Your task to perform on an android device: turn off notifications settings in the gmail app Image 0: 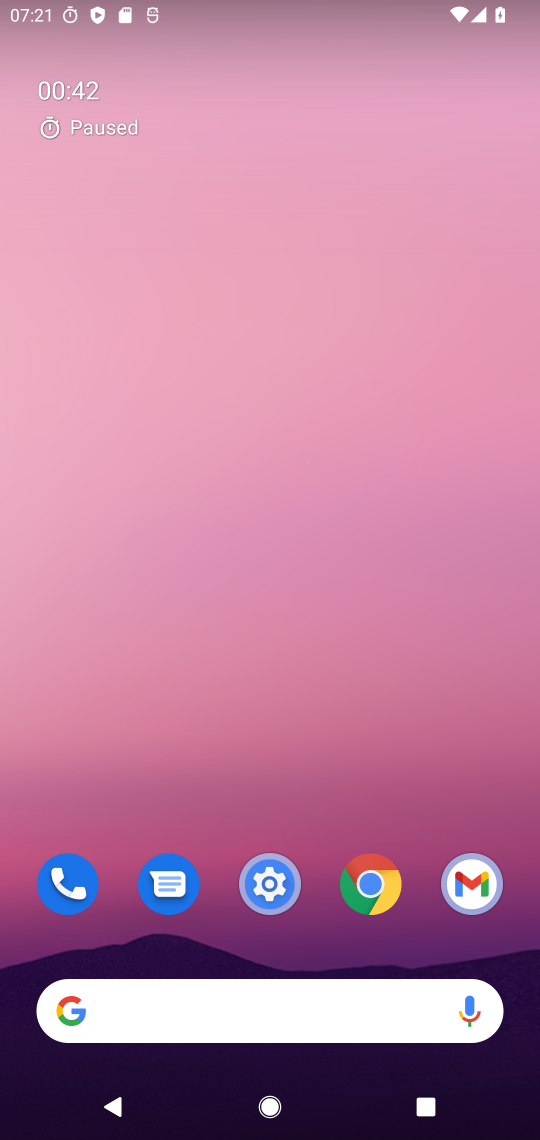
Step 0: press home button
Your task to perform on an android device: turn off notifications settings in the gmail app Image 1: 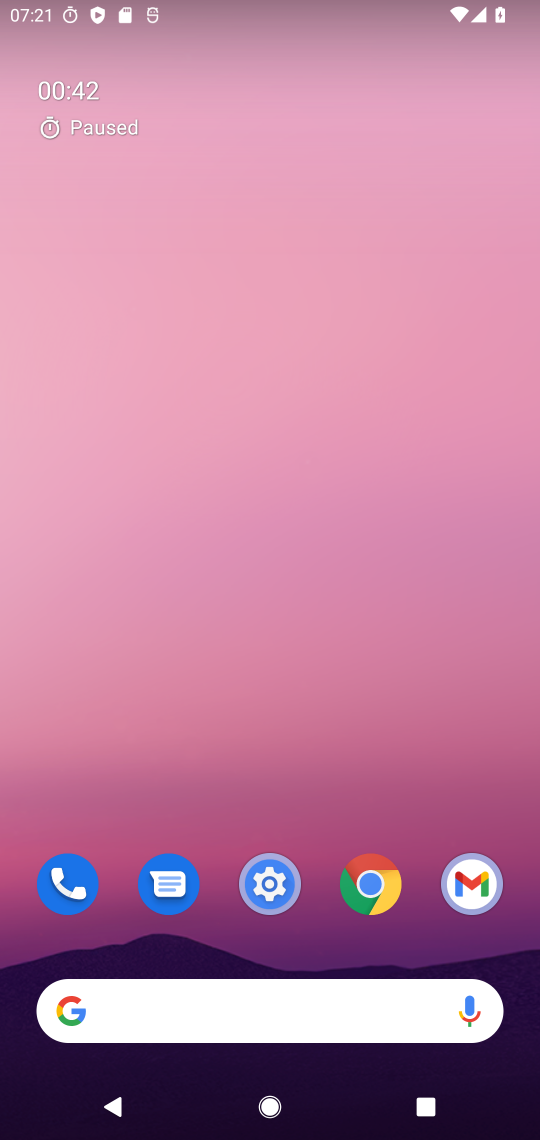
Step 1: press home button
Your task to perform on an android device: turn off notifications settings in the gmail app Image 2: 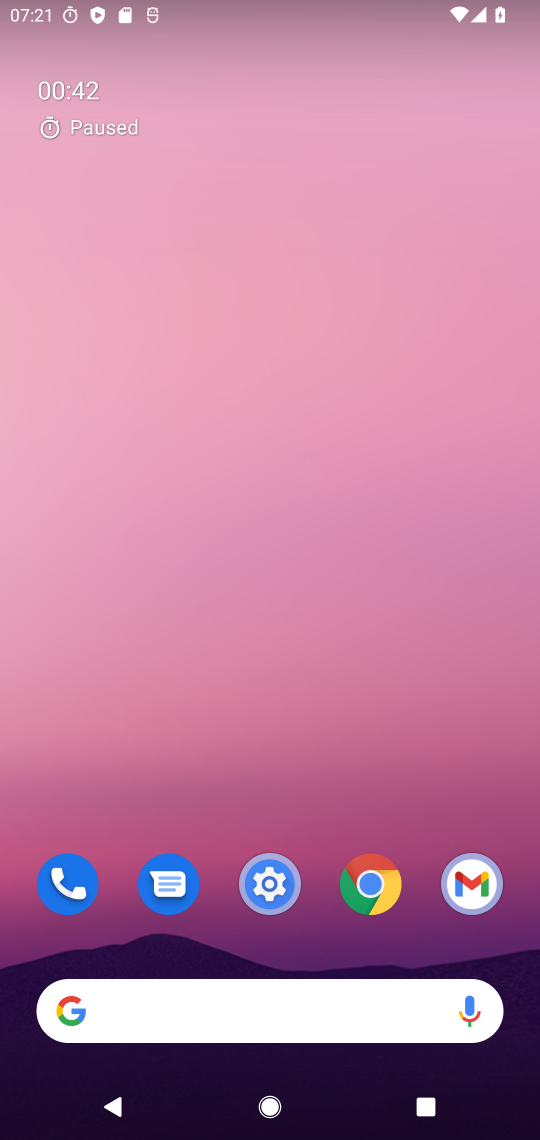
Step 2: click (475, 879)
Your task to perform on an android device: turn off notifications settings in the gmail app Image 3: 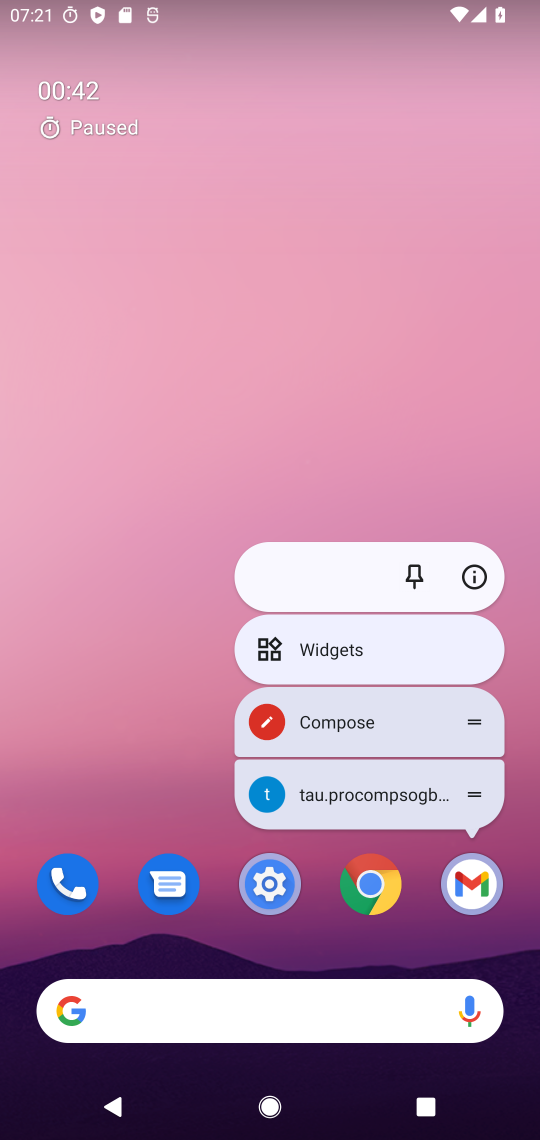
Step 3: drag from (170, 675) to (213, 13)
Your task to perform on an android device: turn off notifications settings in the gmail app Image 4: 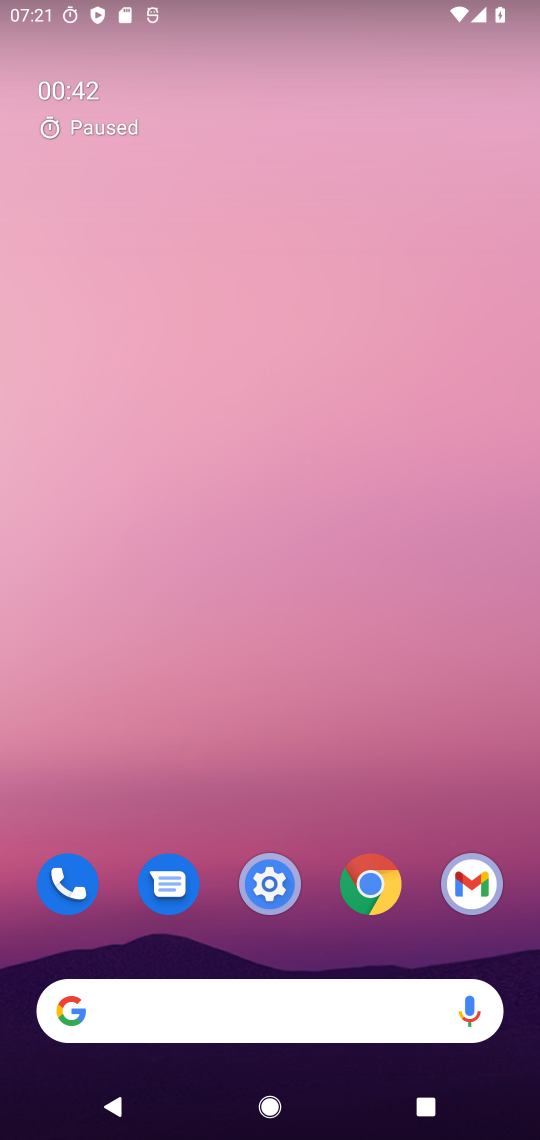
Step 4: drag from (320, 811) to (273, 222)
Your task to perform on an android device: turn off notifications settings in the gmail app Image 5: 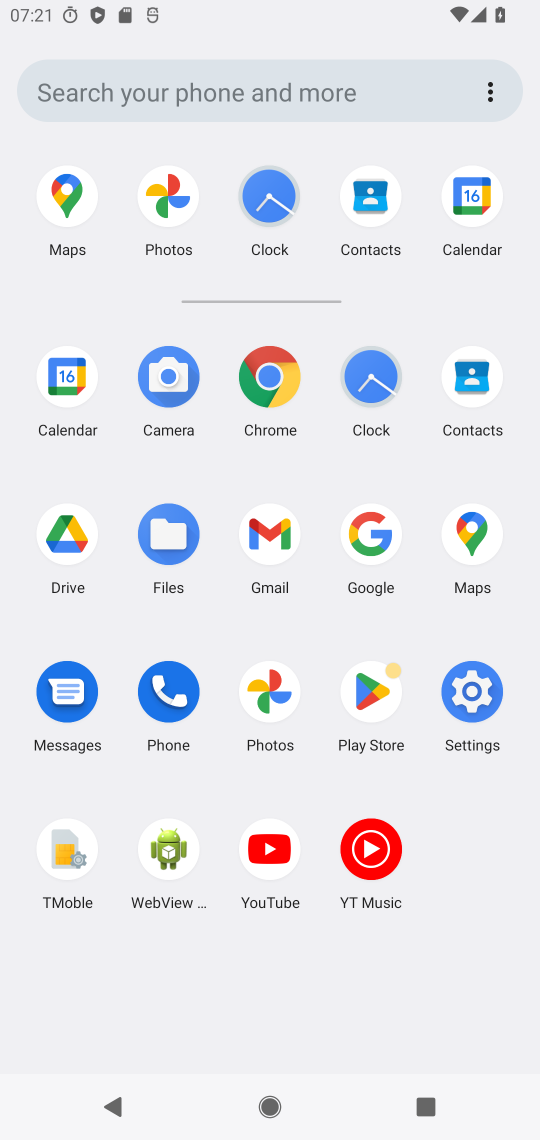
Step 5: click (272, 541)
Your task to perform on an android device: turn off notifications settings in the gmail app Image 6: 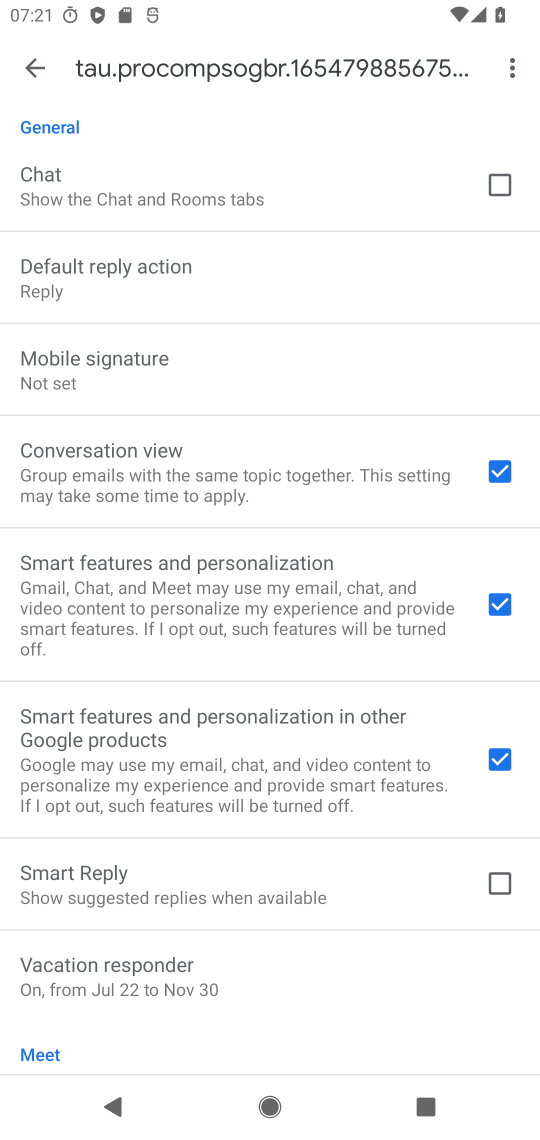
Step 6: drag from (294, 116) to (228, 636)
Your task to perform on an android device: turn off notifications settings in the gmail app Image 7: 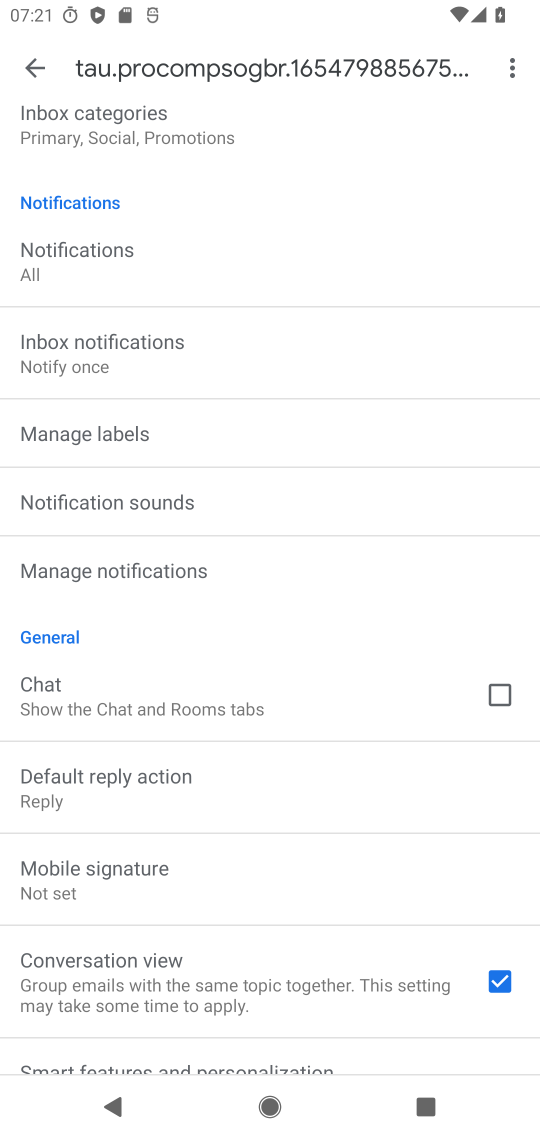
Step 7: click (138, 565)
Your task to perform on an android device: turn off notifications settings in the gmail app Image 8: 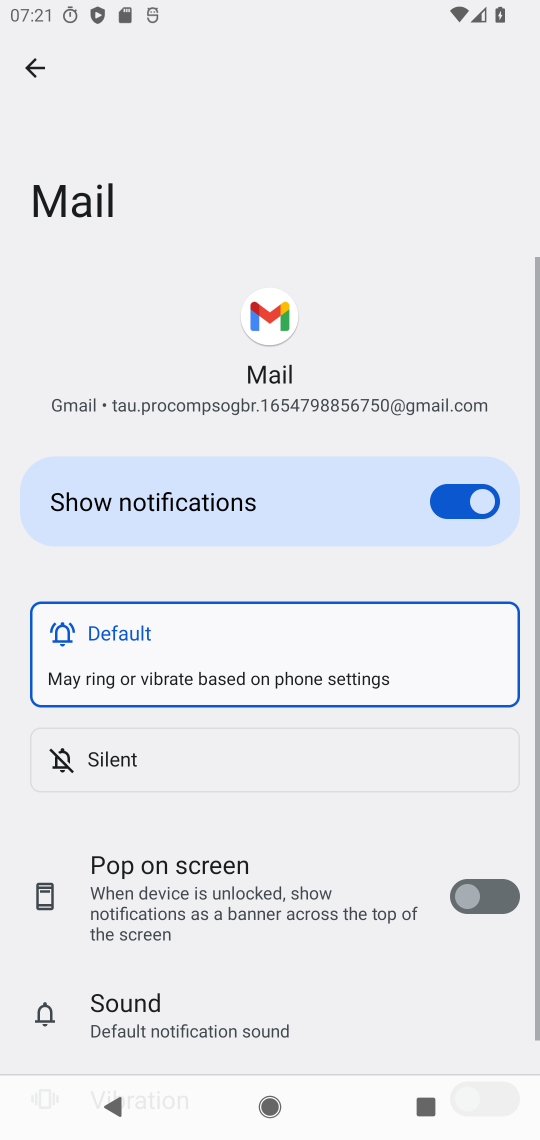
Step 8: click (445, 488)
Your task to perform on an android device: turn off notifications settings in the gmail app Image 9: 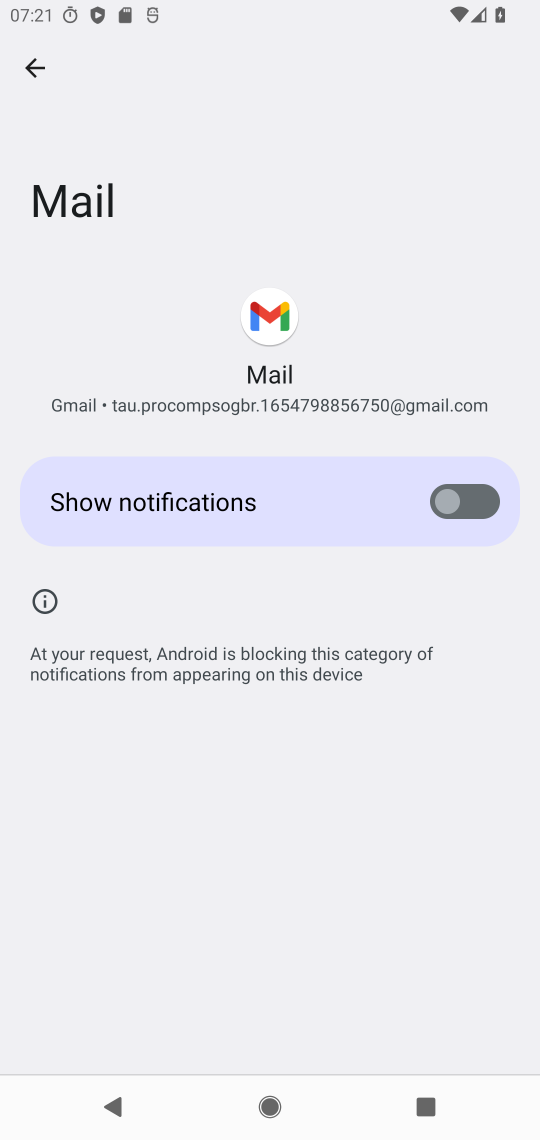
Step 9: task complete